Your task to perform on an android device: Show me popular videos on Youtube Image 0: 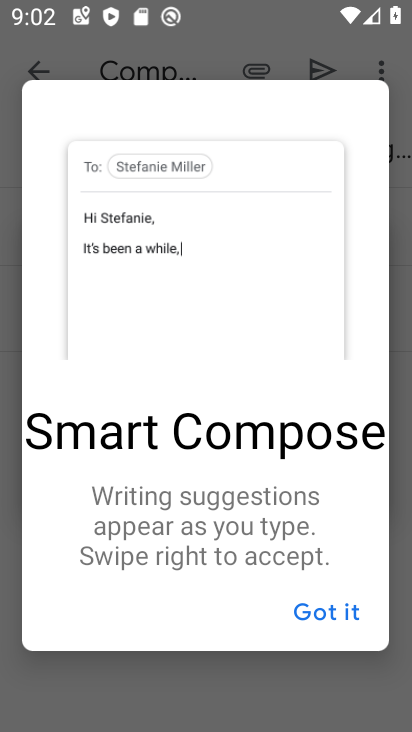
Step 0: press home button
Your task to perform on an android device: Show me popular videos on Youtube Image 1: 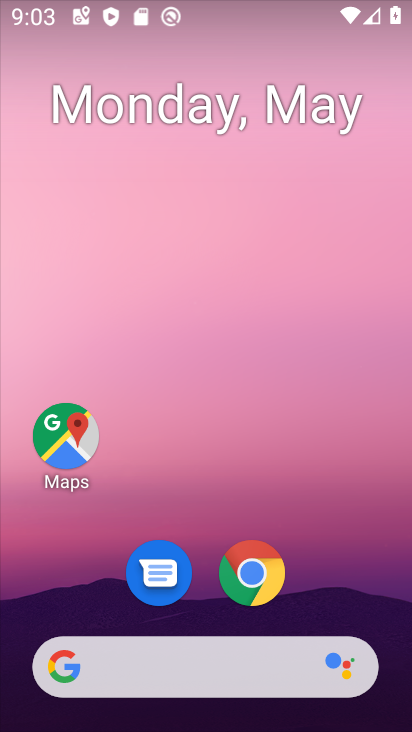
Step 1: drag from (361, 590) to (349, 60)
Your task to perform on an android device: Show me popular videos on Youtube Image 2: 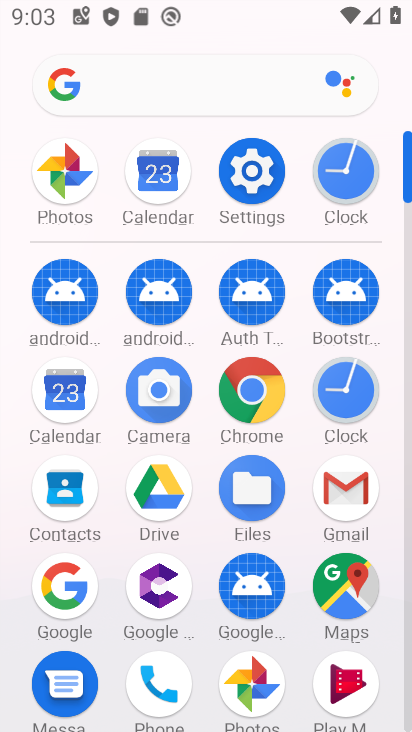
Step 2: click (408, 695)
Your task to perform on an android device: Show me popular videos on Youtube Image 3: 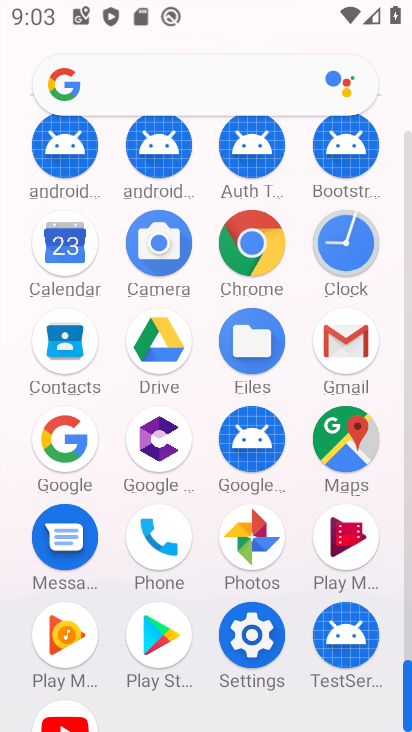
Step 3: click (70, 713)
Your task to perform on an android device: Show me popular videos on Youtube Image 4: 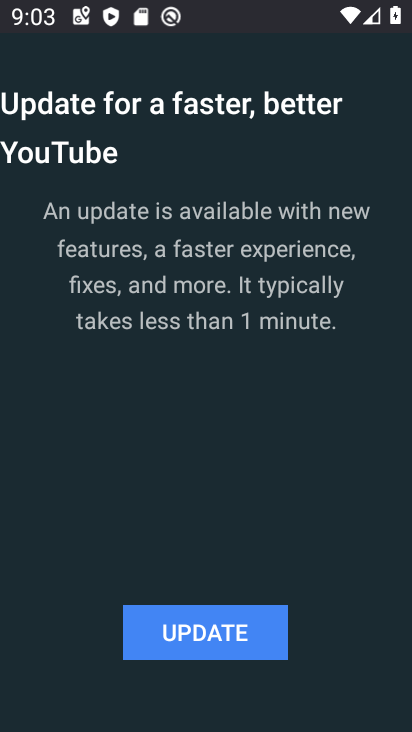
Step 4: click (183, 616)
Your task to perform on an android device: Show me popular videos on Youtube Image 5: 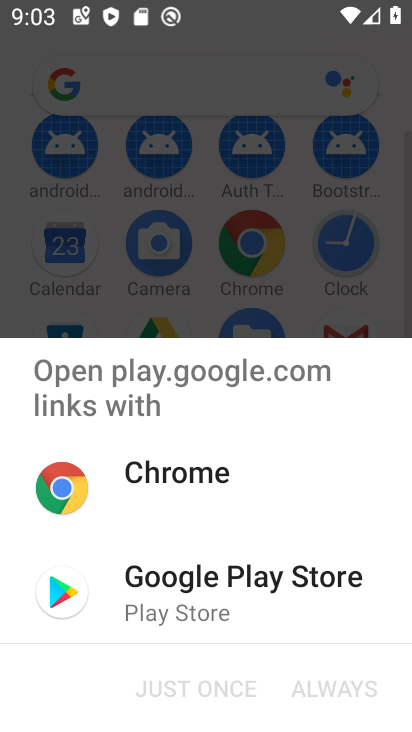
Step 5: click (151, 586)
Your task to perform on an android device: Show me popular videos on Youtube Image 6: 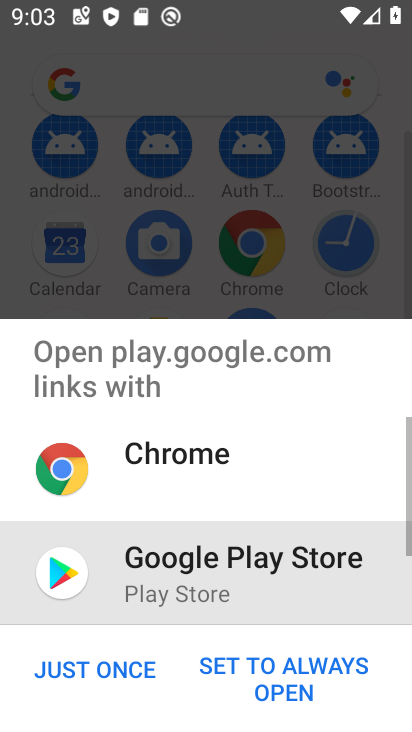
Step 6: click (123, 674)
Your task to perform on an android device: Show me popular videos on Youtube Image 7: 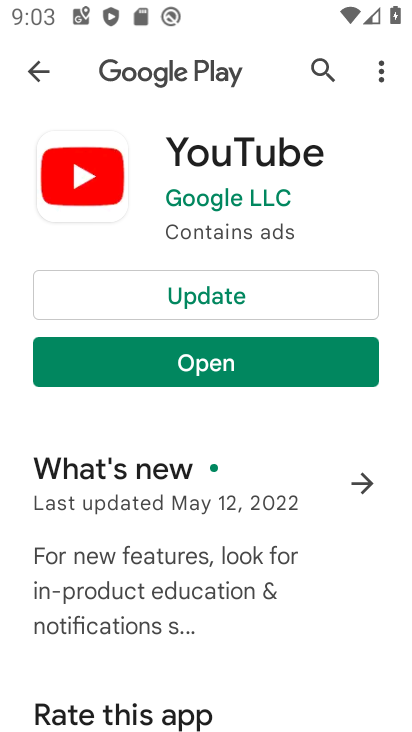
Step 7: click (190, 312)
Your task to perform on an android device: Show me popular videos on Youtube Image 8: 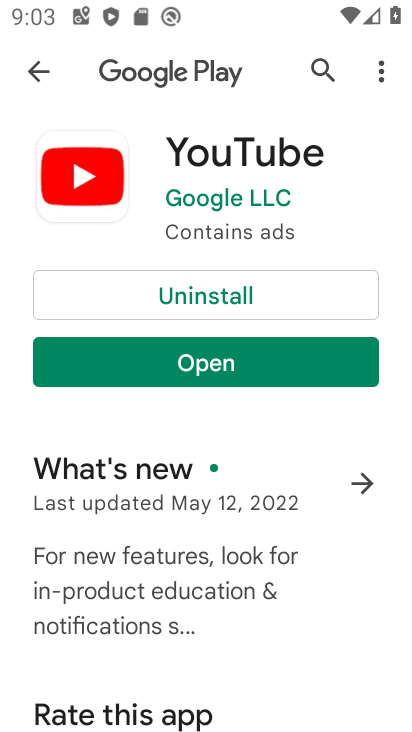
Step 8: click (206, 366)
Your task to perform on an android device: Show me popular videos on Youtube Image 9: 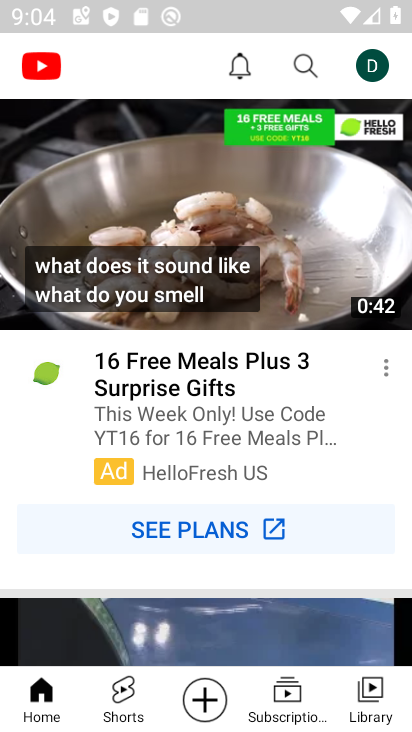
Step 9: task complete